Your task to perform on an android device: turn off javascript in the chrome app Image 0: 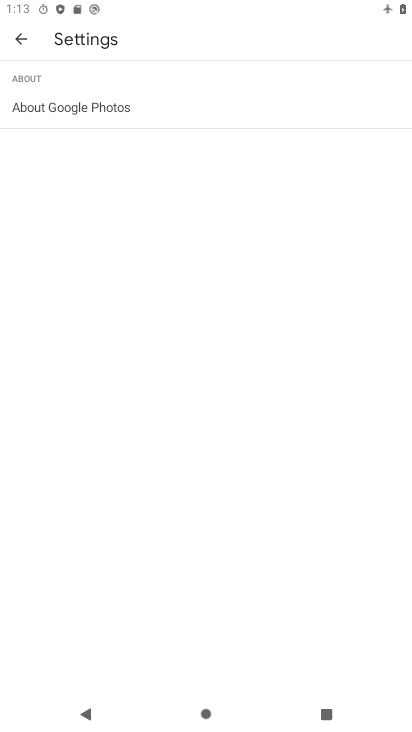
Step 0: press home button
Your task to perform on an android device: turn off javascript in the chrome app Image 1: 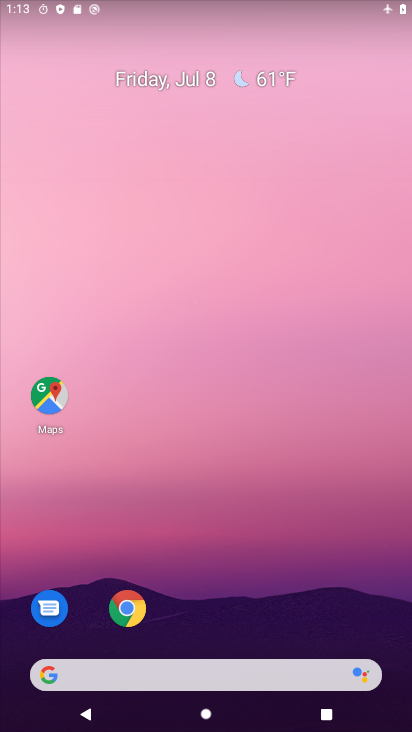
Step 1: click (128, 603)
Your task to perform on an android device: turn off javascript in the chrome app Image 2: 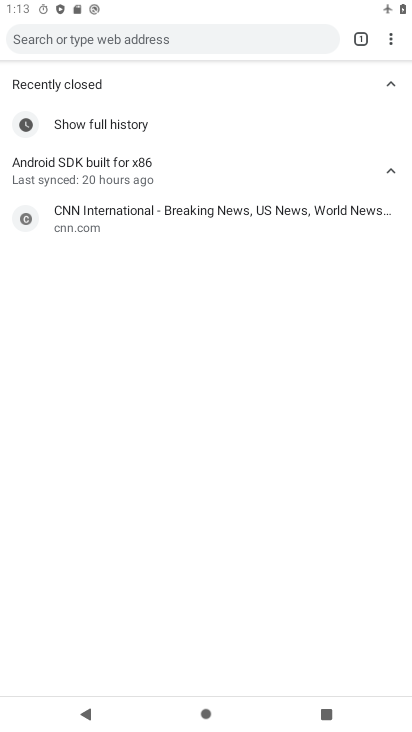
Step 2: click (383, 38)
Your task to perform on an android device: turn off javascript in the chrome app Image 3: 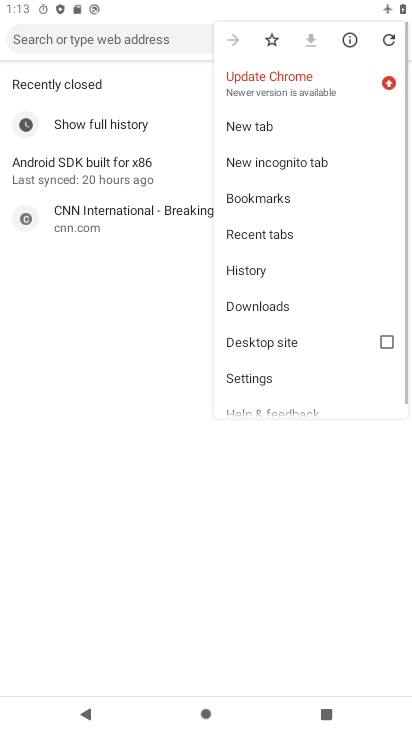
Step 3: click (267, 372)
Your task to perform on an android device: turn off javascript in the chrome app Image 4: 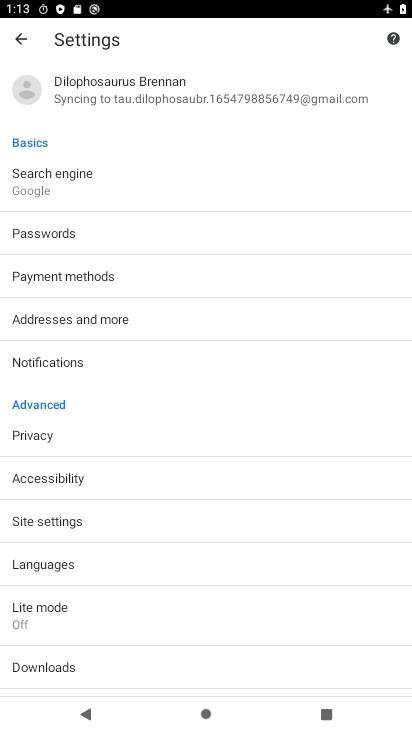
Step 4: click (56, 520)
Your task to perform on an android device: turn off javascript in the chrome app Image 5: 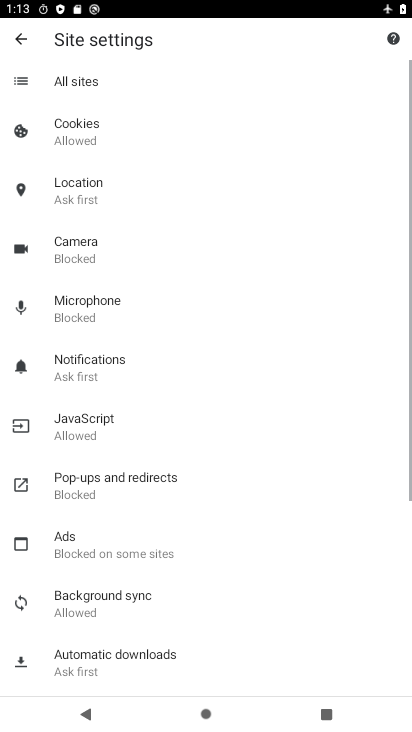
Step 5: click (73, 432)
Your task to perform on an android device: turn off javascript in the chrome app Image 6: 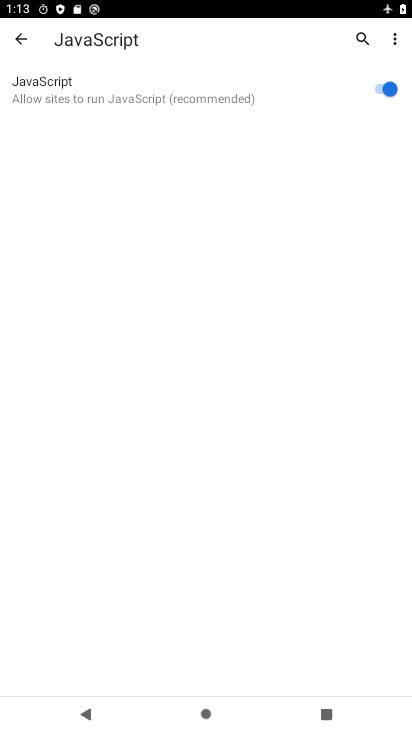
Step 6: click (389, 83)
Your task to perform on an android device: turn off javascript in the chrome app Image 7: 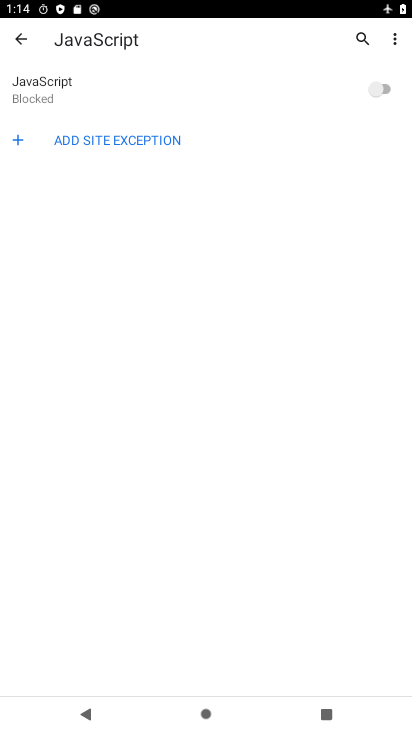
Step 7: task complete